Your task to perform on an android device: read, delete, or share a saved page in the chrome app Image 0: 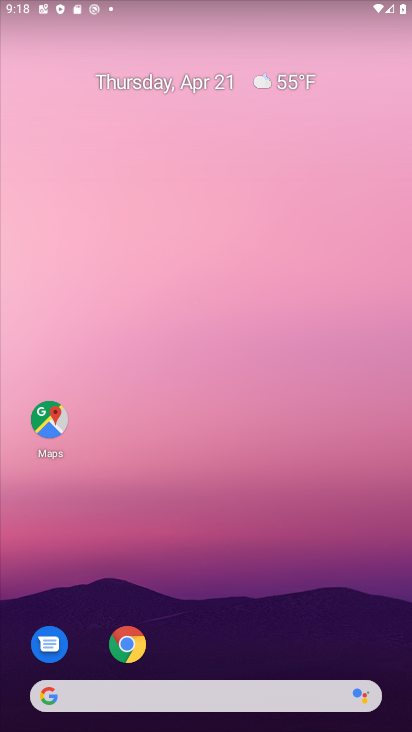
Step 0: click (138, 636)
Your task to perform on an android device: read, delete, or share a saved page in the chrome app Image 1: 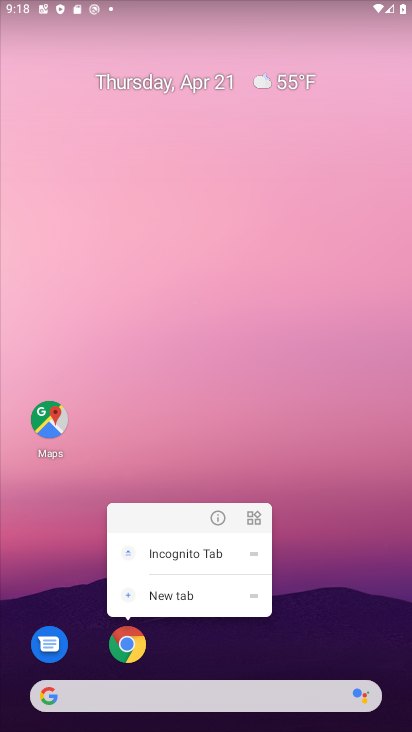
Step 1: click (120, 643)
Your task to perform on an android device: read, delete, or share a saved page in the chrome app Image 2: 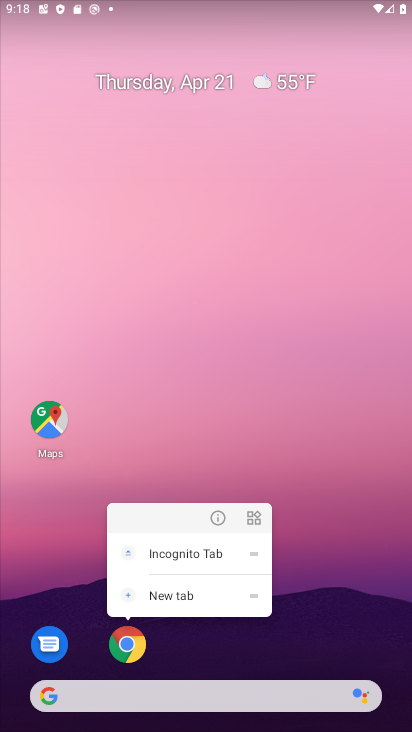
Step 2: drag from (330, 610) to (402, 50)
Your task to perform on an android device: read, delete, or share a saved page in the chrome app Image 3: 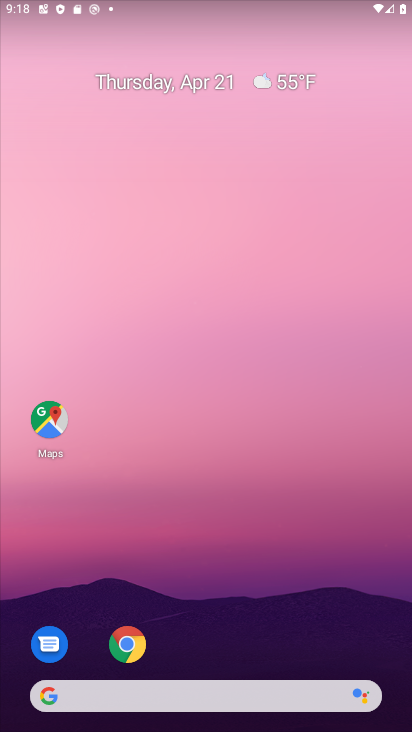
Step 3: drag from (323, 679) to (286, 183)
Your task to perform on an android device: read, delete, or share a saved page in the chrome app Image 4: 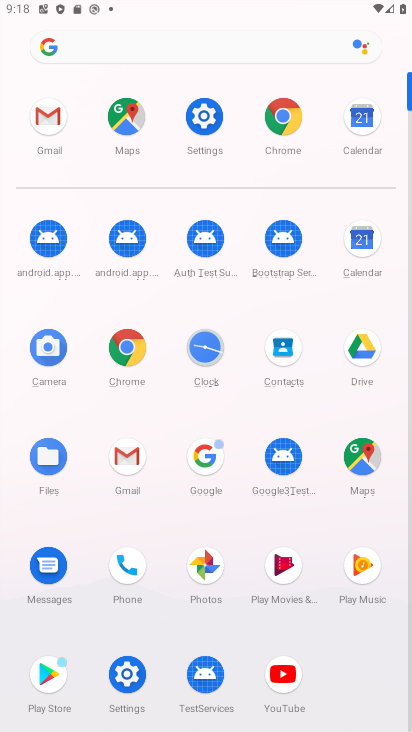
Step 4: click (124, 343)
Your task to perform on an android device: read, delete, or share a saved page in the chrome app Image 5: 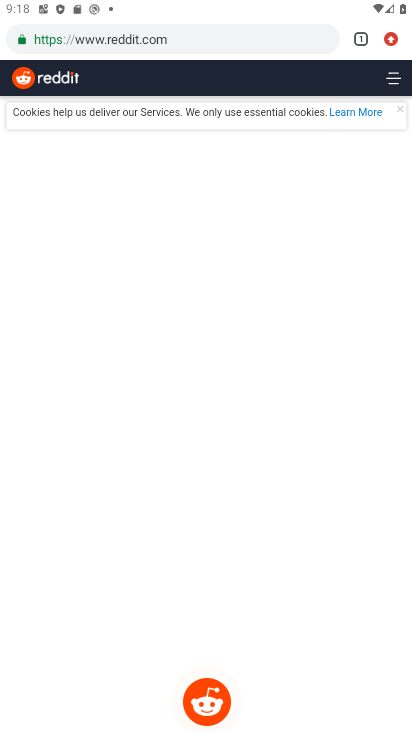
Step 5: task complete